Your task to perform on an android device: Open notification settings Image 0: 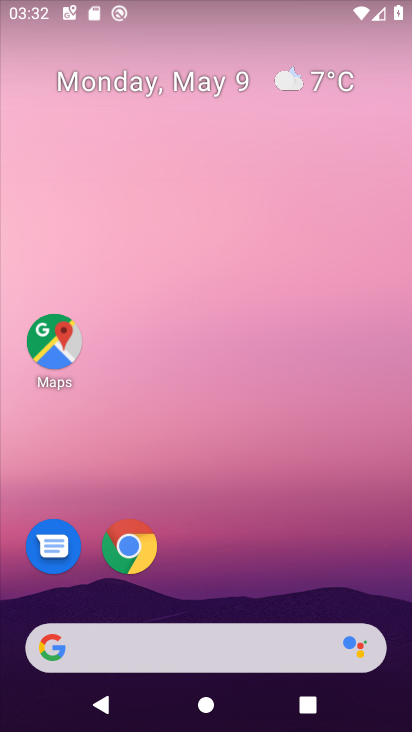
Step 0: drag from (257, 579) to (218, 21)
Your task to perform on an android device: Open notification settings Image 1: 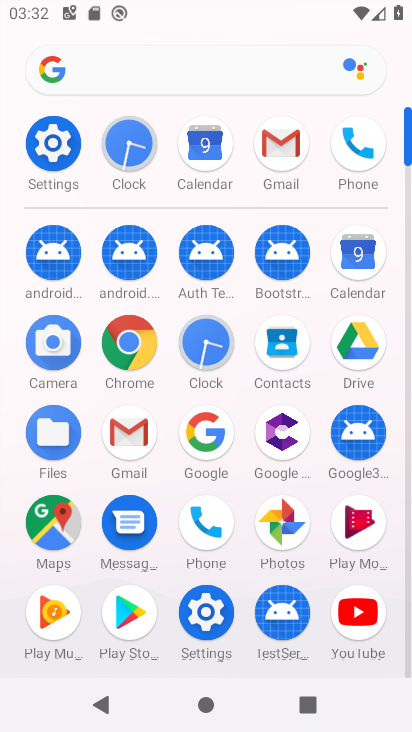
Step 1: click (48, 130)
Your task to perform on an android device: Open notification settings Image 2: 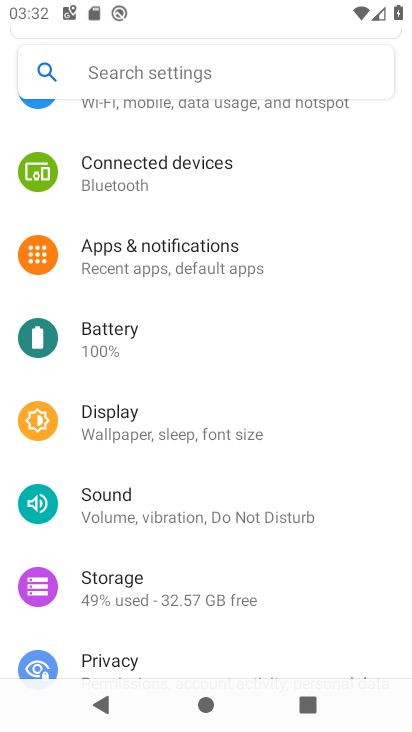
Step 2: drag from (230, 233) to (238, 368)
Your task to perform on an android device: Open notification settings Image 3: 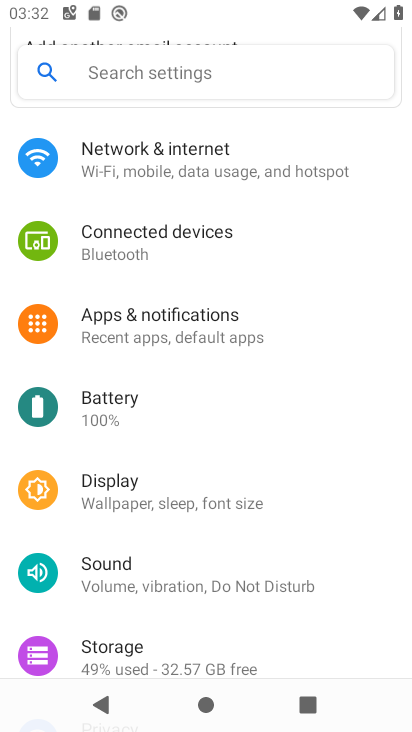
Step 3: click (231, 320)
Your task to perform on an android device: Open notification settings Image 4: 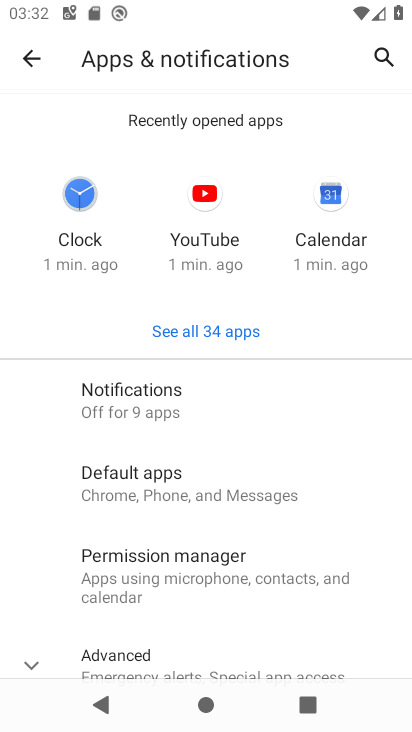
Step 4: click (170, 391)
Your task to perform on an android device: Open notification settings Image 5: 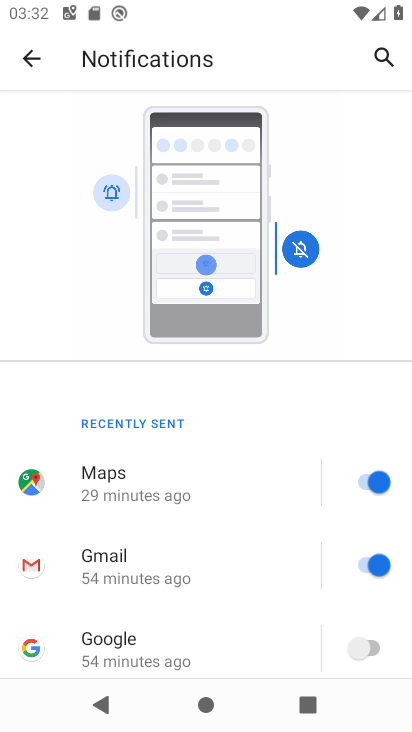
Step 5: task complete